Your task to perform on an android device: turn off location history Image 0: 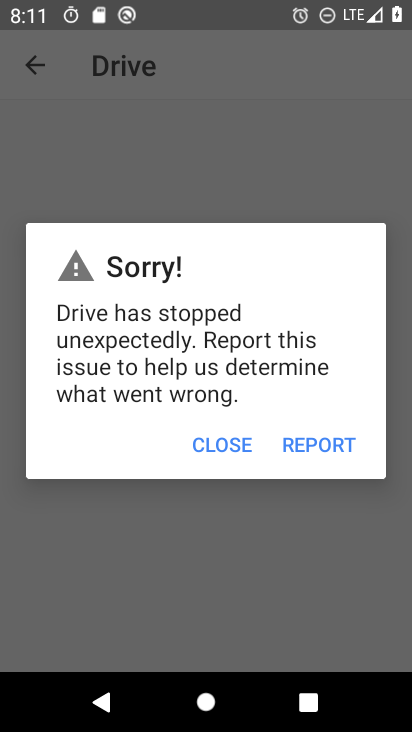
Step 0: press home button
Your task to perform on an android device: turn off location history Image 1: 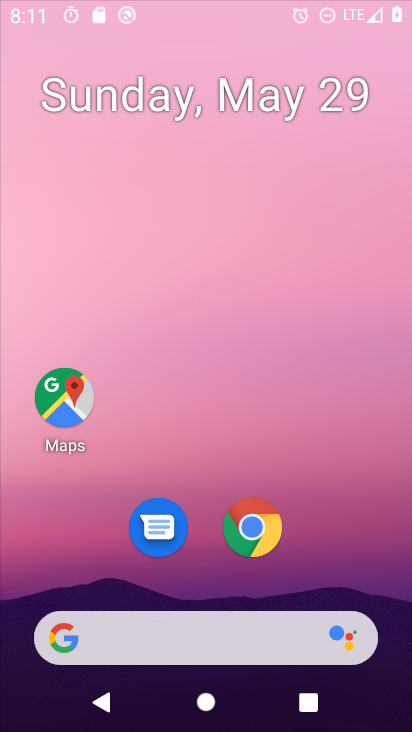
Step 1: drag from (385, 643) to (289, 81)
Your task to perform on an android device: turn off location history Image 2: 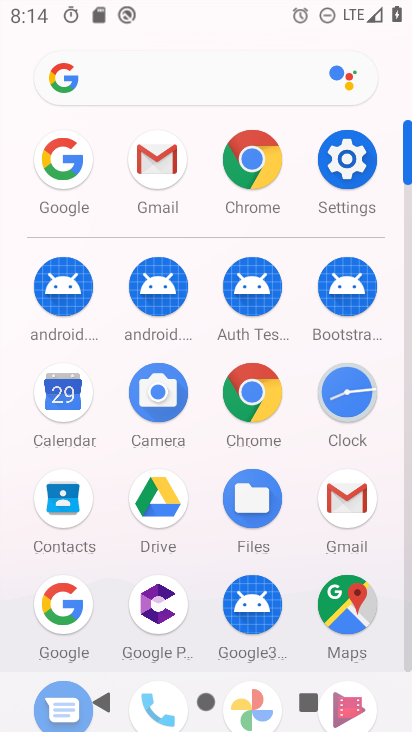
Step 2: click (322, 187)
Your task to perform on an android device: turn off location history Image 3: 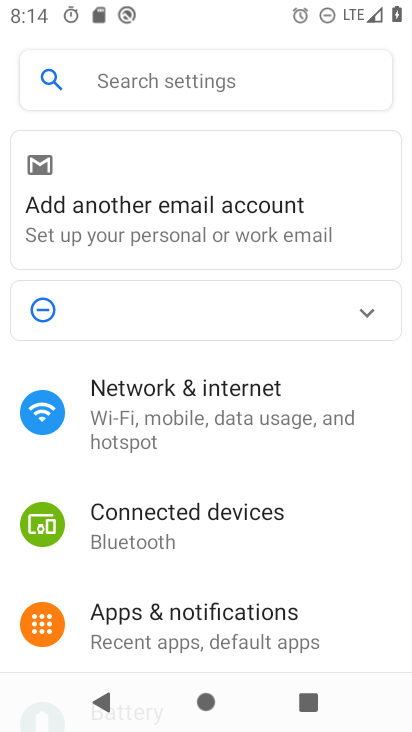
Step 3: drag from (231, 613) to (282, 170)
Your task to perform on an android device: turn off location history Image 4: 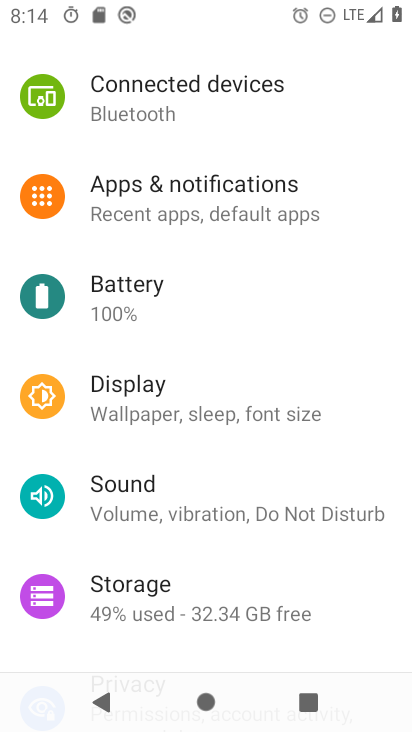
Step 4: drag from (178, 605) to (183, 167)
Your task to perform on an android device: turn off location history Image 5: 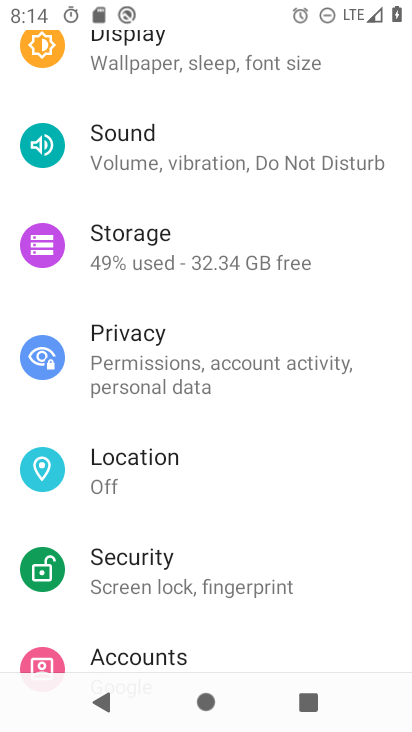
Step 5: click (155, 473)
Your task to perform on an android device: turn off location history Image 6: 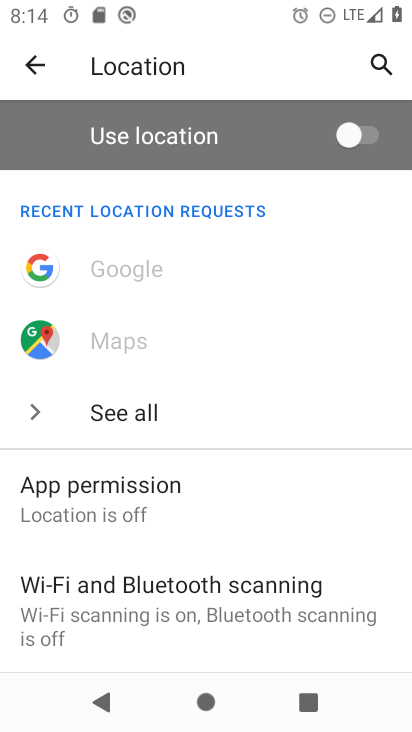
Step 6: drag from (169, 624) to (206, 315)
Your task to perform on an android device: turn off location history Image 7: 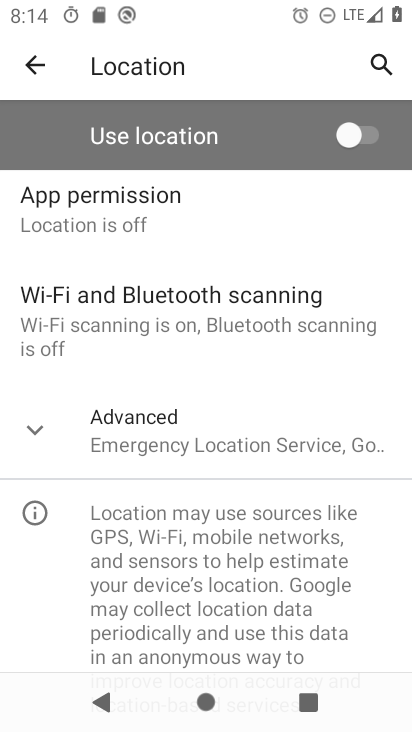
Step 7: click (158, 425)
Your task to perform on an android device: turn off location history Image 8: 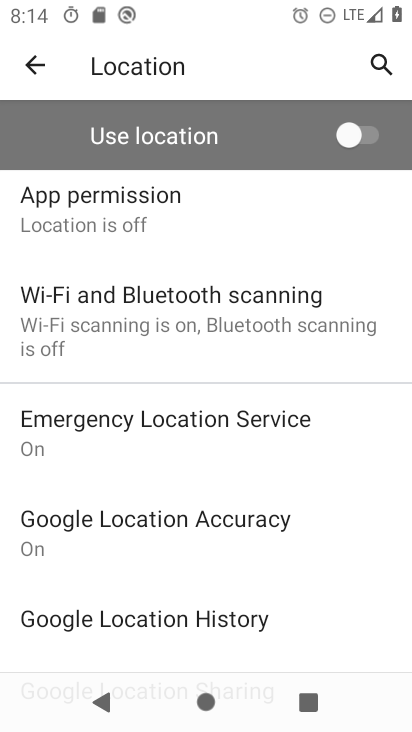
Step 8: click (224, 616)
Your task to perform on an android device: turn off location history Image 9: 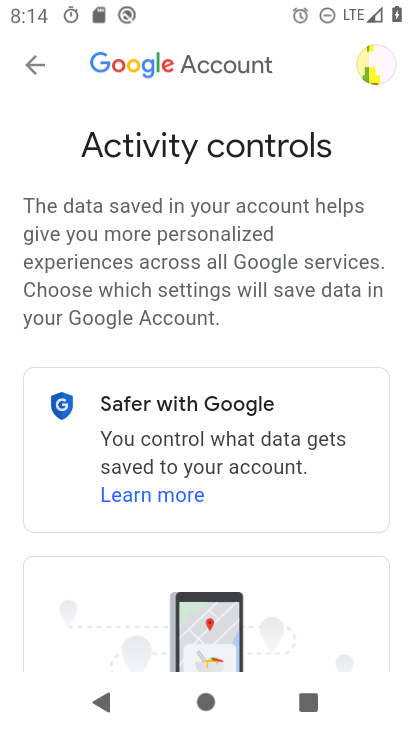
Step 9: task complete